Your task to perform on an android device: Go to settings Image 0: 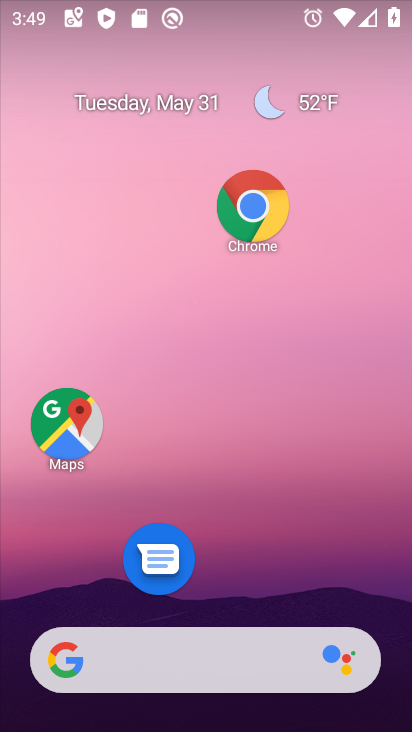
Step 0: drag from (215, 577) to (193, 110)
Your task to perform on an android device: Go to settings Image 1: 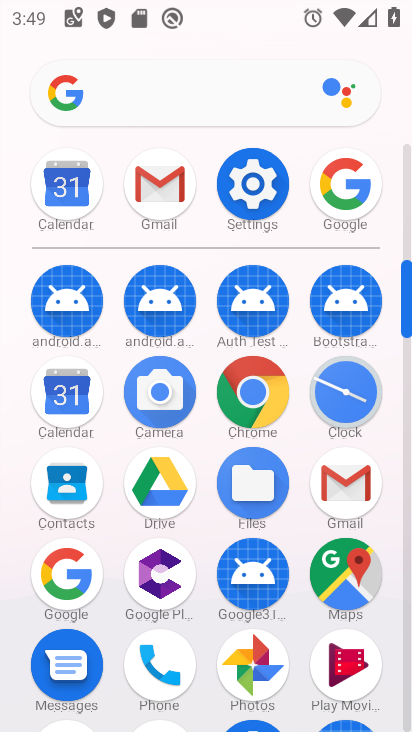
Step 1: click (256, 184)
Your task to perform on an android device: Go to settings Image 2: 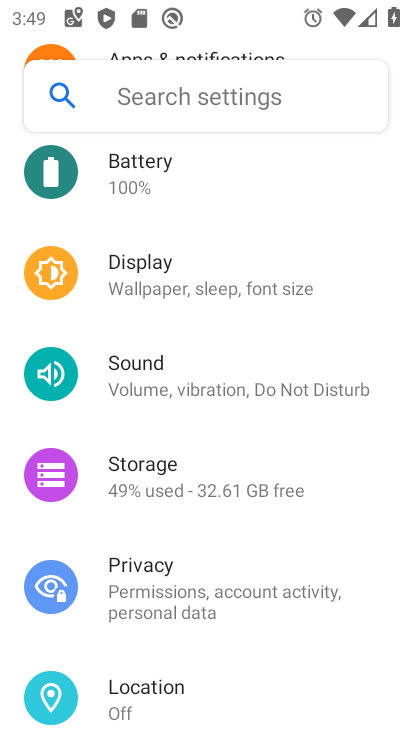
Step 2: task complete